Your task to perform on an android device: What's on my calendar tomorrow? Image 0: 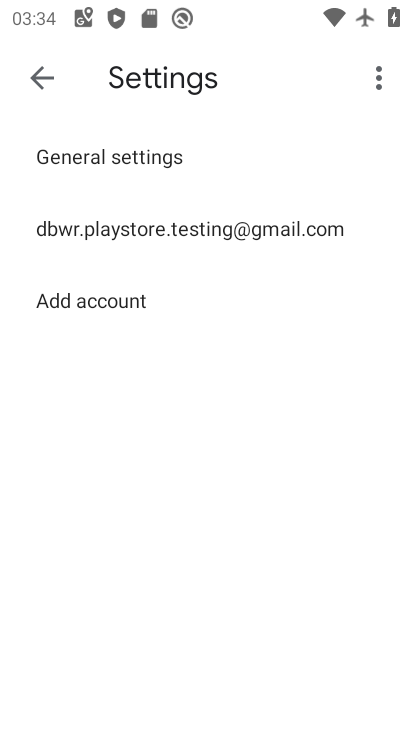
Step 0: press home button
Your task to perform on an android device: What's on my calendar tomorrow? Image 1: 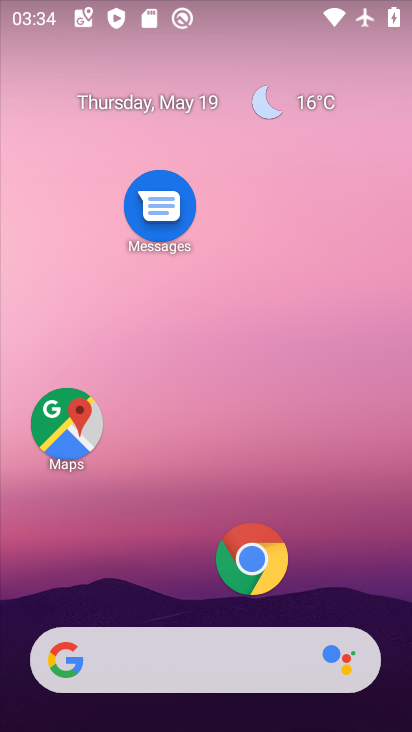
Step 1: drag from (181, 597) to (214, 232)
Your task to perform on an android device: What's on my calendar tomorrow? Image 2: 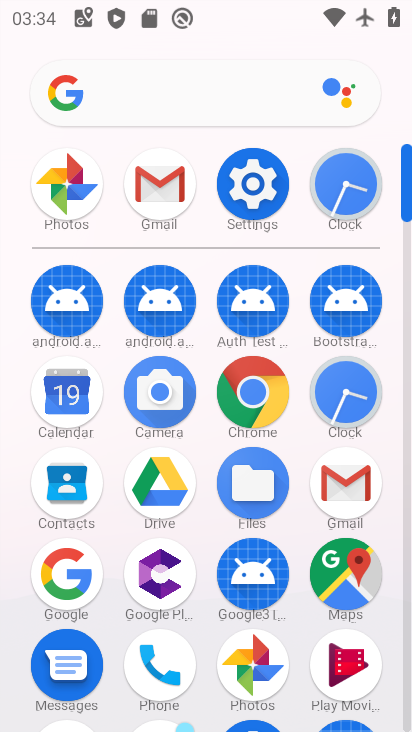
Step 2: click (86, 379)
Your task to perform on an android device: What's on my calendar tomorrow? Image 3: 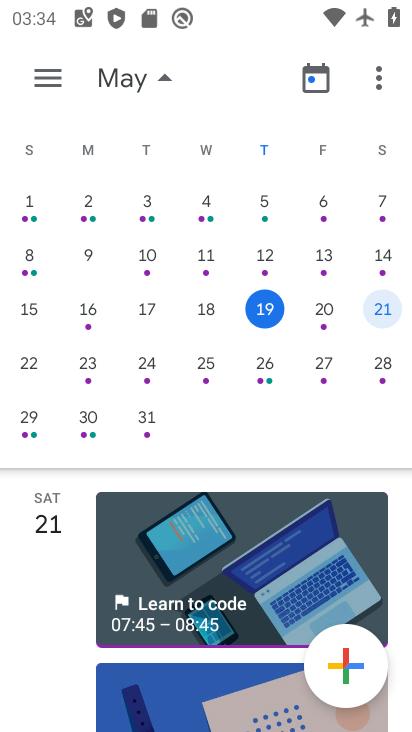
Step 3: click (327, 308)
Your task to perform on an android device: What's on my calendar tomorrow? Image 4: 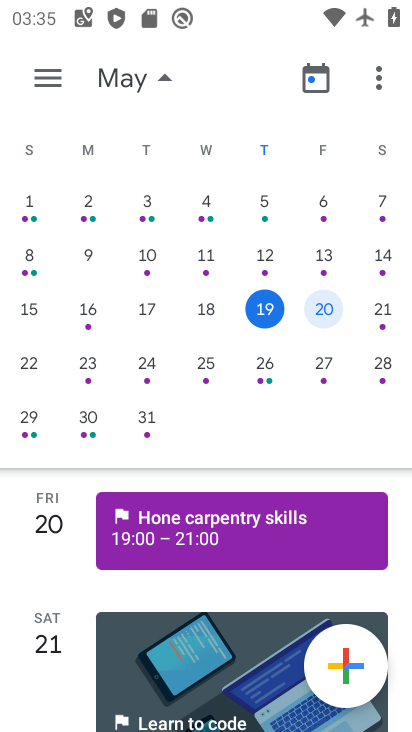
Step 4: click (317, 308)
Your task to perform on an android device: What's on my calendar tomorrow? Image 5: 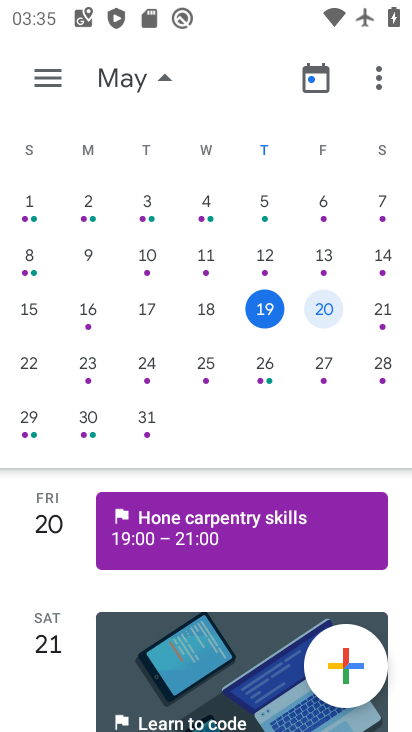
Step 5: task complete